Your task to perform on an android device: turn on the 24-hour format for clock Image 0: 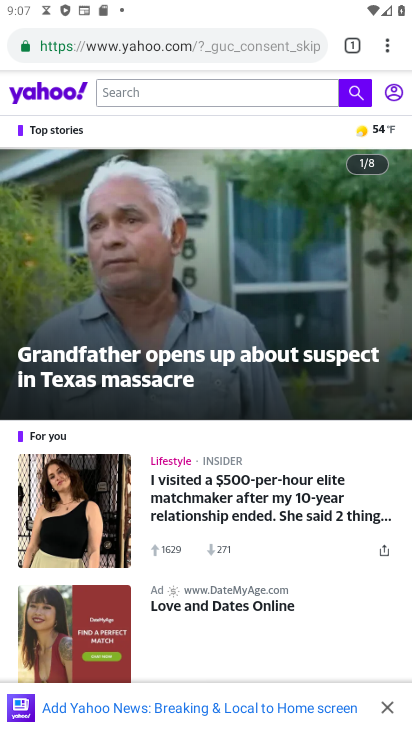
Step 0: press home button
Your task to perform on an android device: turn on the 24-hour format for clock Image 1: 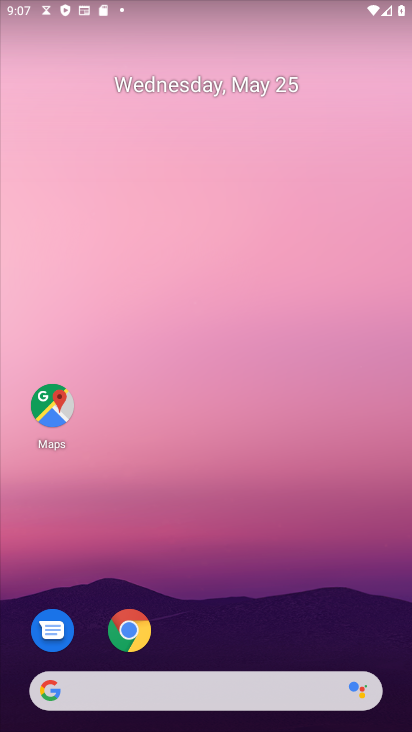
Step 1: drag from (221, 623) to (262, 38)
Your task to perform on an android device: turn on the 24-hour format for clock Image 2: 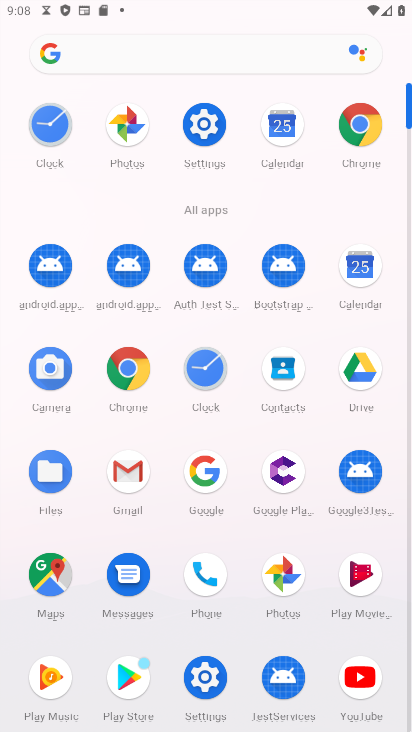
Step 2: click (205, 369)
Your task to perform on an android device: turn on the 24-hour format for clock Image 3: 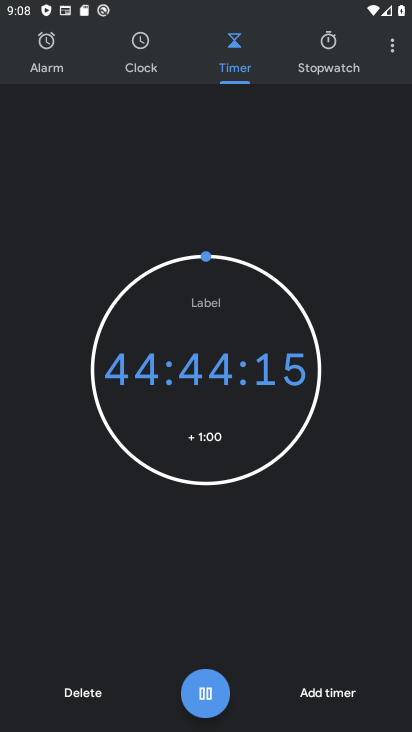
Step 3: click (379, 53)
Your task to perform on an android device: turn on the 24-hour format for clock Image 4: 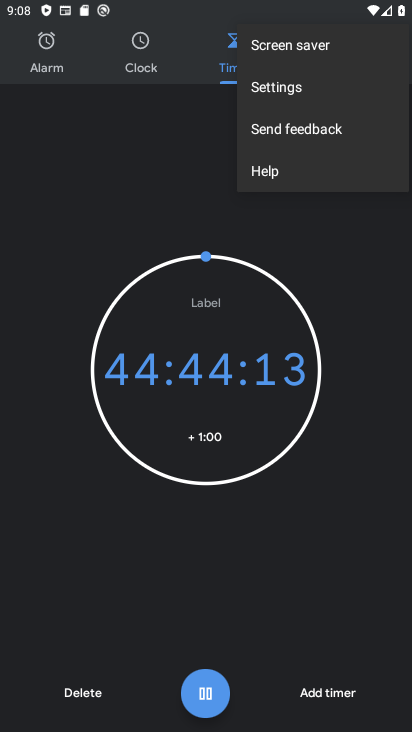
Step 4: click (275, 88)
Your task to perform on an android device: turn on the 24-hour format for clock Image 5: 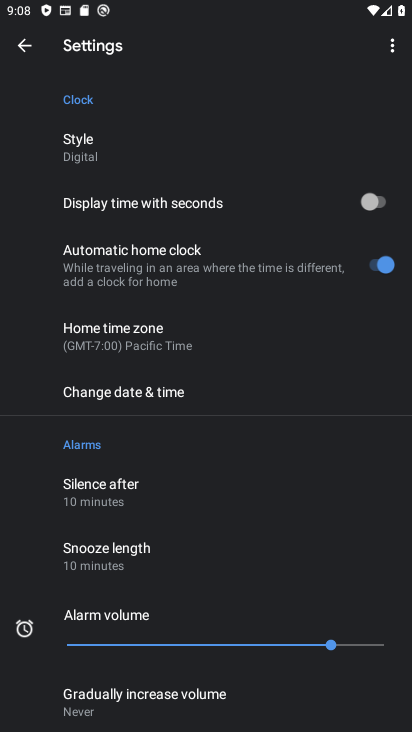
Step 5: click (139, 386)
Your task to perform on an android device: turn on the 24-hour format for clock Image 6: 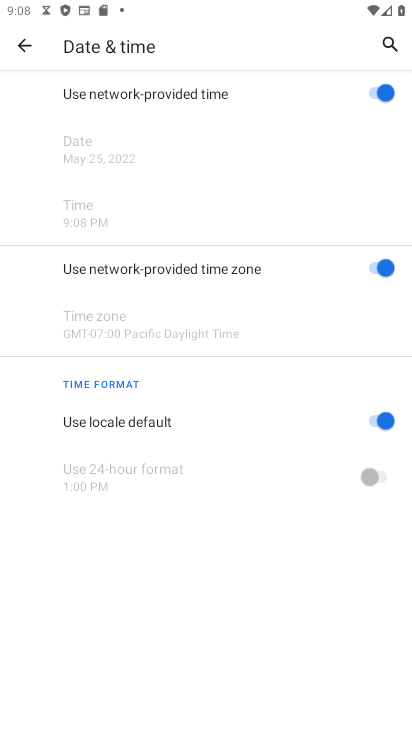
Step 6: click (372, 422)
Your task to perform on an android device: turn on the 24-hour format for clock Image 7: 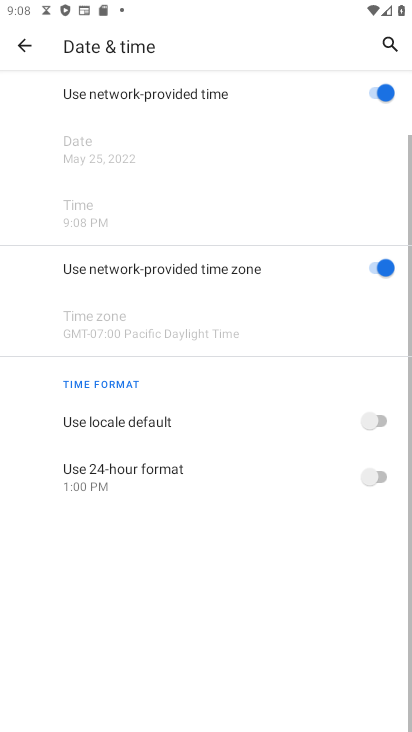
Step 7: click (382, 476)
Your task to perform on an android device: turn on the 24-hour format for clock Image 8: 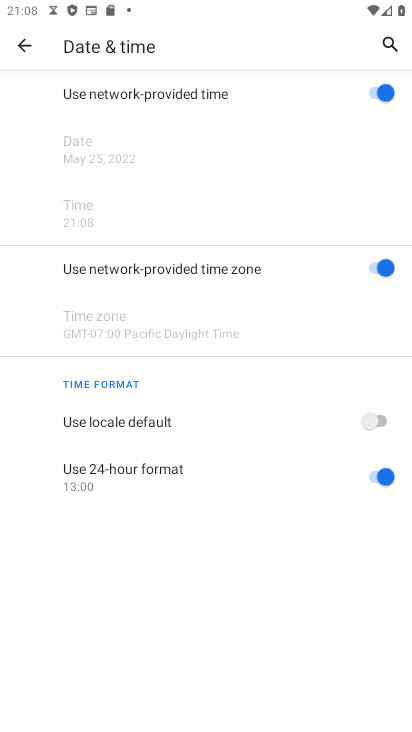
Step 8: task complete